Your task to perform on an android device: see sites visited before in the chrome app Image 0: 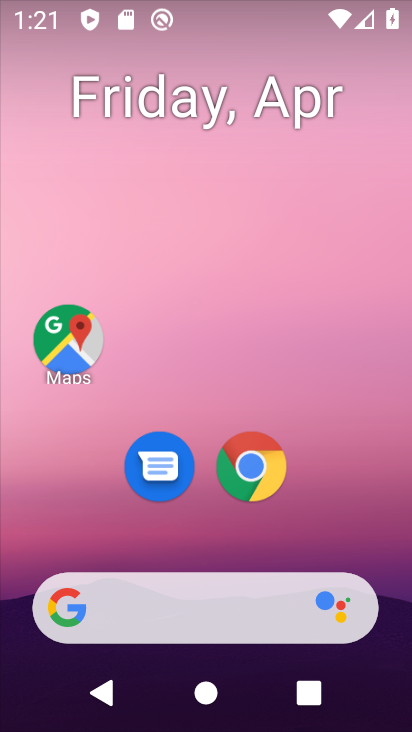
Step 0: click (263, 464)
Your task to perform on an android device: see sites visited before in the chrome app Image 1: 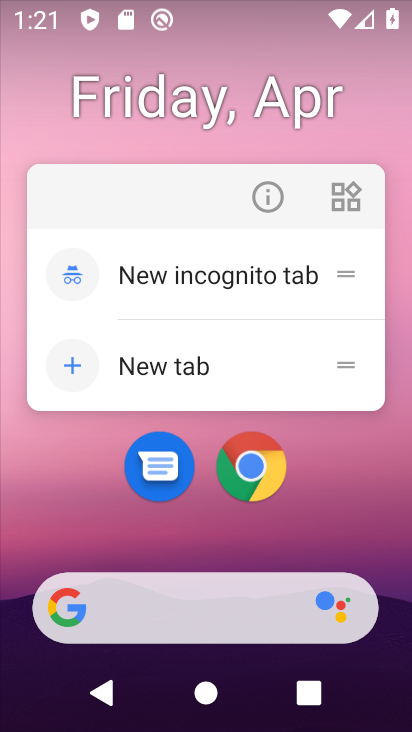
Step 1: click (238, 466)
Your task to perform on an android device: see sites visited before in the chrome app Image 2: 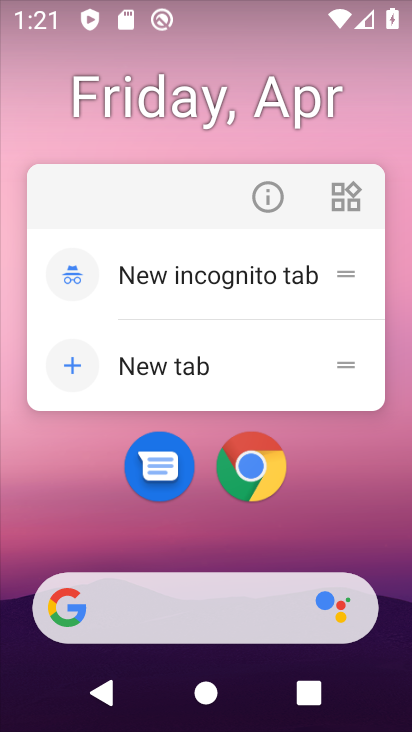
Step 2: click (264, 480)
Your task to perform on an android device: see sites visited before in the chrome app Image 3: 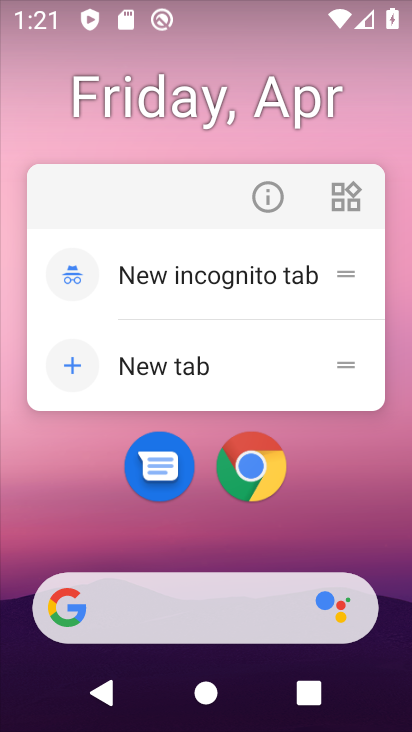
Step 3: click (264, 480)
Your task to perform on an android device: see sites visited before in the chrome app Image 4: 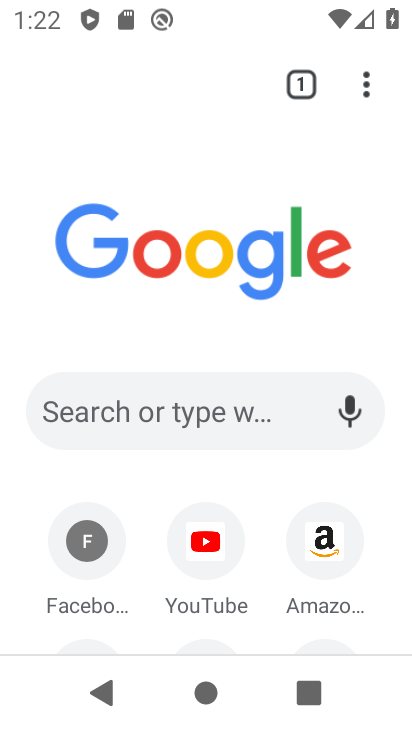
Step 4: task complete